Your task to perform on an android device: turn on priority inbox in the gmail app Image 0: 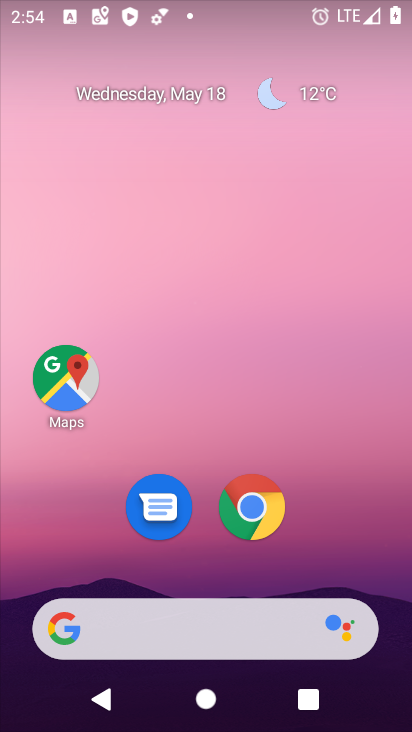
Step 0: drag from (396, 603) to (362, 72)
Your task to perform on an android device: turn on priority inbox in the gmail app Image 1: 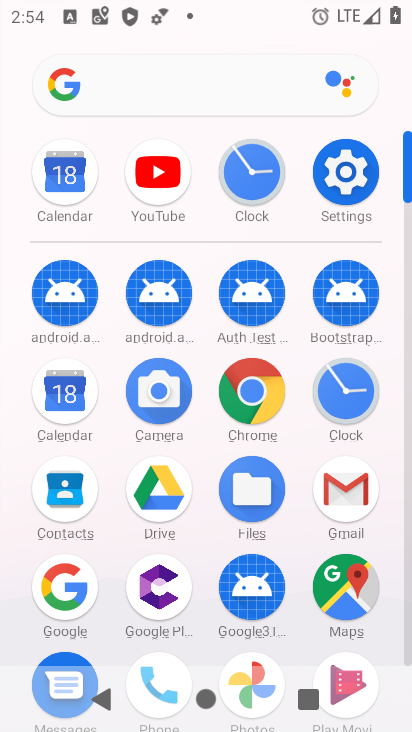
Step 1: click (408, 647)
Your task to perform on an android device: turn on priority inbox in the gmail app Image 2: 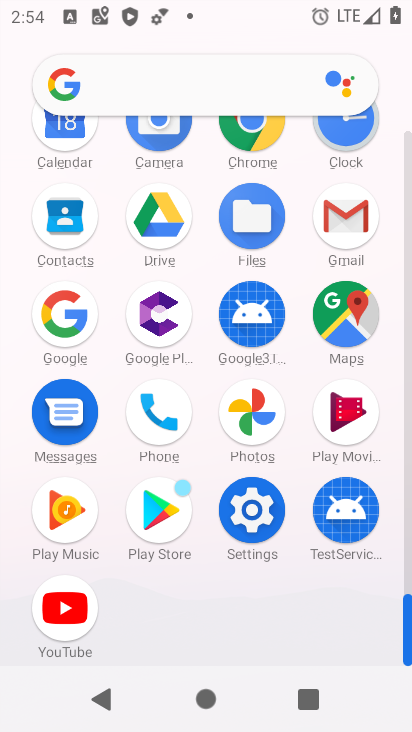
Step 2: click (344, 213)
Your task to perform on an android device: turn on priority inbox in the gmail app Image 3: 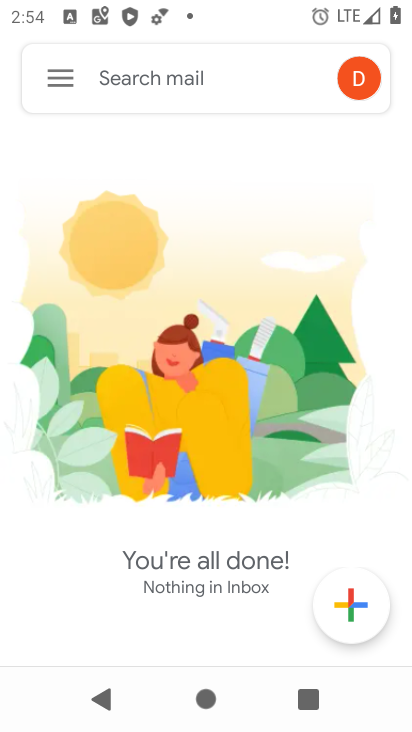
Step 3: click (57, 77)
Your task to perform on an android device: turn on priority inbox in the gmail app Image 4: 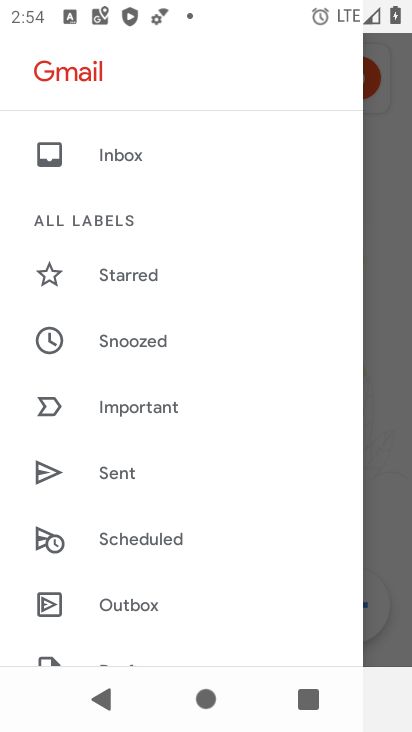
Step 4: drag from (217, 588) to (243, 105)
Your task to perform on an android device: turn on priority inbox in the gmail app Image 5: 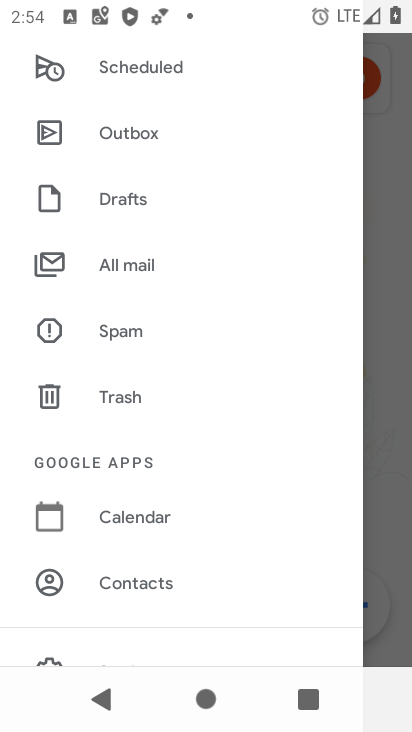
Step 5: drag from (233, 579) to (253, 217)
Your task to perform on an android device: turn on priority inbox in the gmail app Image 6: 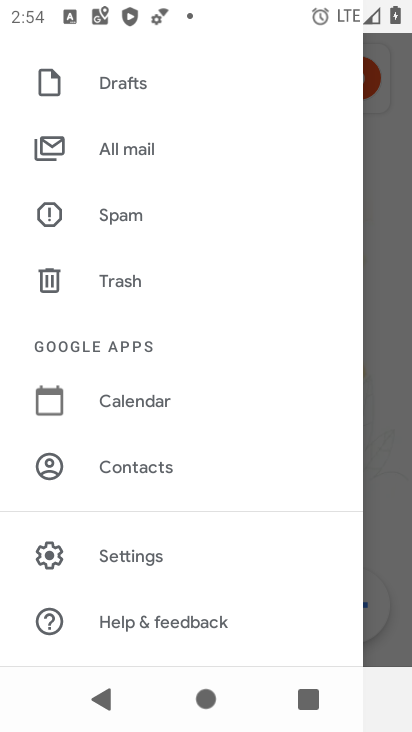
Step 6: click (120, 556)
Your task to perform on an android device: turn on priority inbox in the gmail app Image 7: 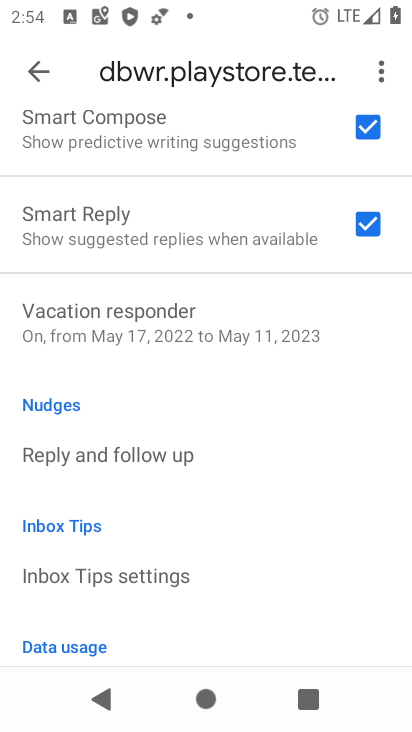
Step 7: drag from (281, 151) to (267, 459)
Your task to perform on an android device: turn on priority inbox in the gmail app Image 8: 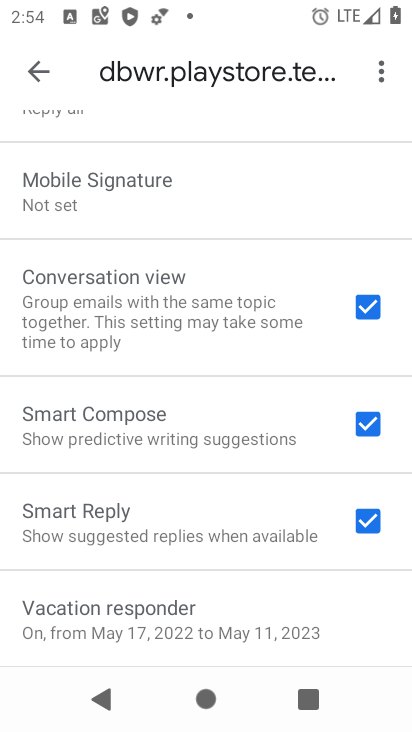
Step 8: drag from (288, 195) to (278, 439)
Your task to perform on an android device: turn on priority inbox in the gmail app Image 9: 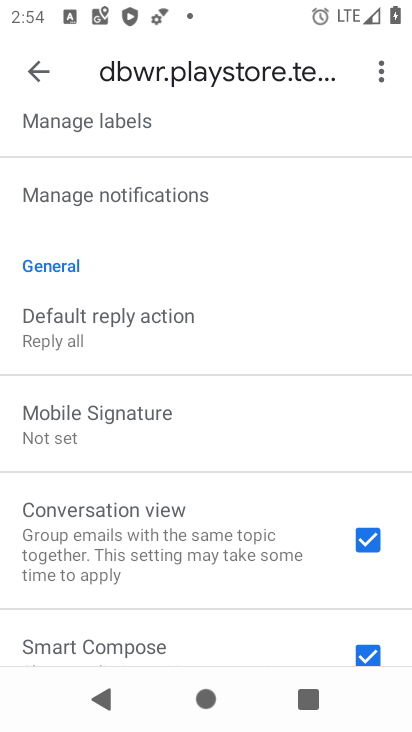
Step 9: drag from (261, 202) to (246, 449)
Your task to perform on an android device: turn on priority inbox in the gmail app Image 10: 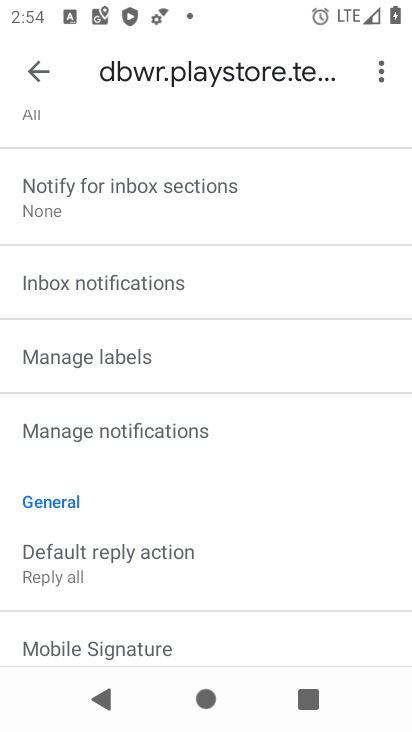
Step 10: drag from (282, 223) to (258, 489)
Your task to perform on an android device: turn on priority inbox in the gmail app Image 11: 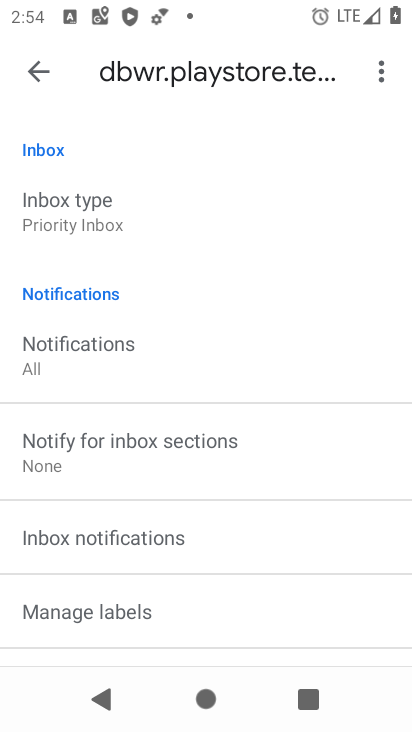
Step 11: click (85, 206)
Your task to perform on an android device: turn on priority inbox in the gmail app Image 12: 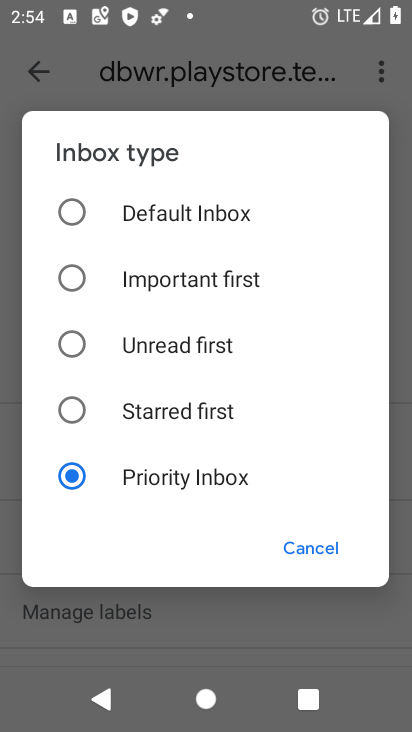
Step 12: task complete